Your task to perform on an android device: turn vacation reply on in the gmail app Image 0: 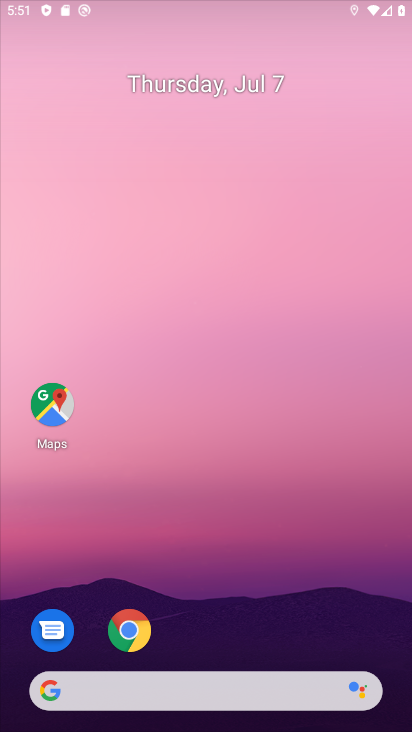
Step 0: drag from (196, 615) to (135, 5)
Your task to perform on an android device: turn vacation reply on in the gmail app Image 1: 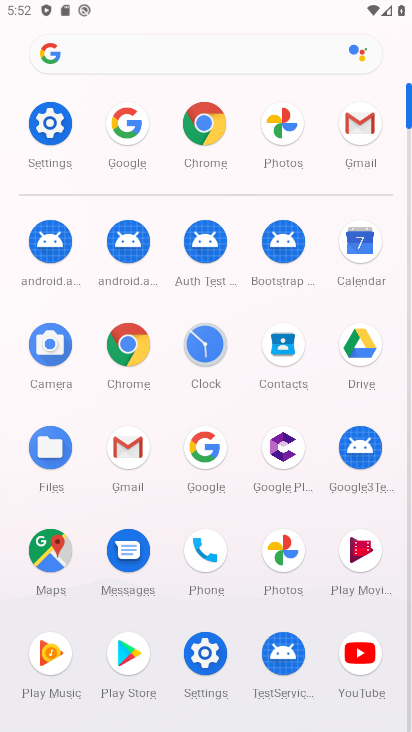
Step 1: click (128, 457)
Your task to perform on an android device: turn vacation reply on in the gmail app Image 2: 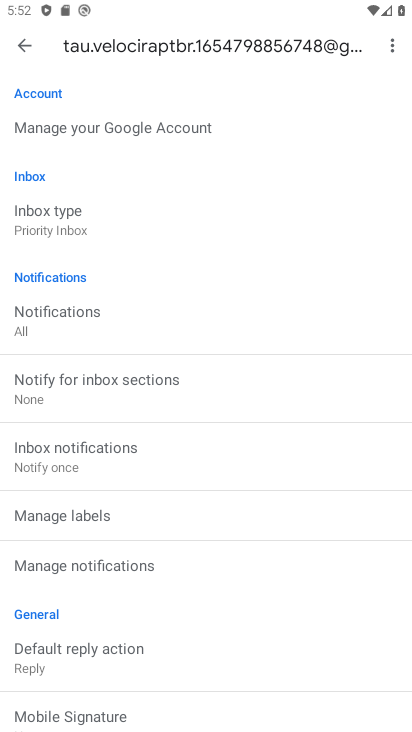
Step 2: drag from (87, 634) to (123, 160)
Your task to perform on an android device: turn vacation reply on in the gmail app Image 3: 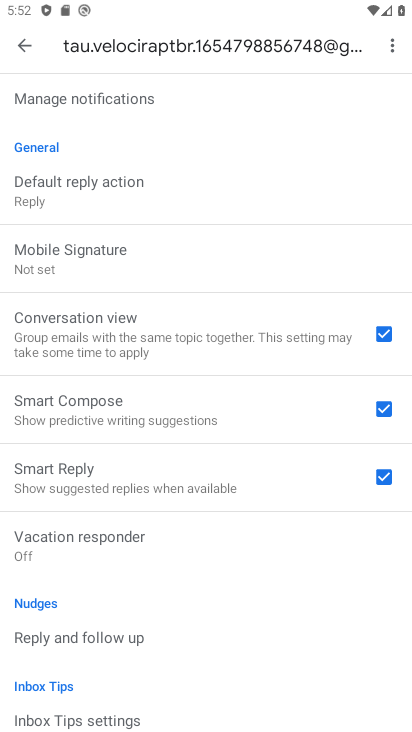
Step 3: drag from (151, 551) to (244, 0)
Your task to perform on an android device: turn vacation reply on in the gmail app Image 4: 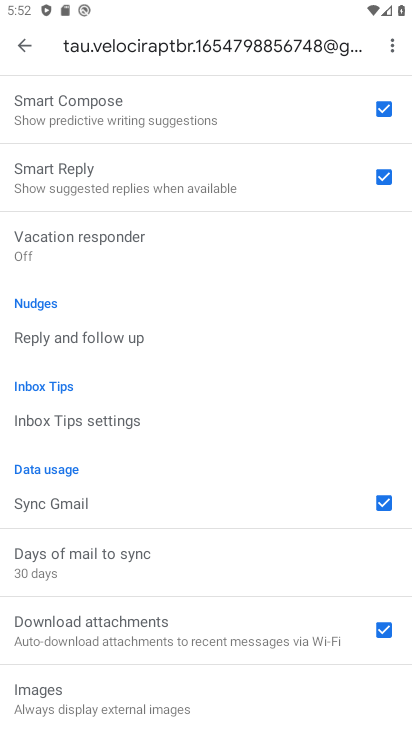
Step 4: drag from (205, 376) to (202, 430)
Your task to perform on an android device: turn vacation reply on in the gmail app Image 5: 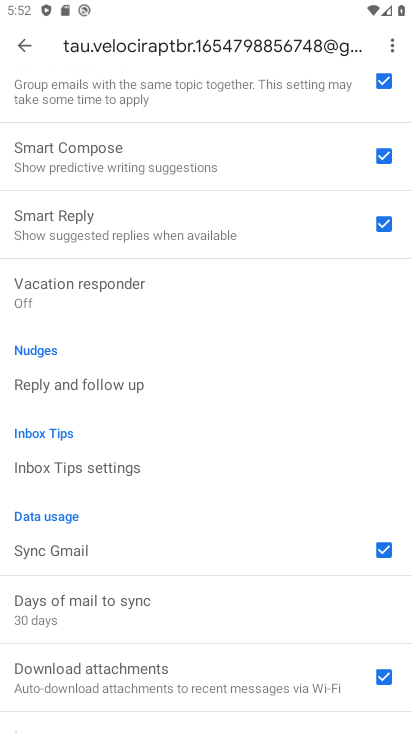
Step 5: drag from (216, 271) to (206, 709)
Your task to perform on an android device: turn vacation reply on in the gmail app Image 6: 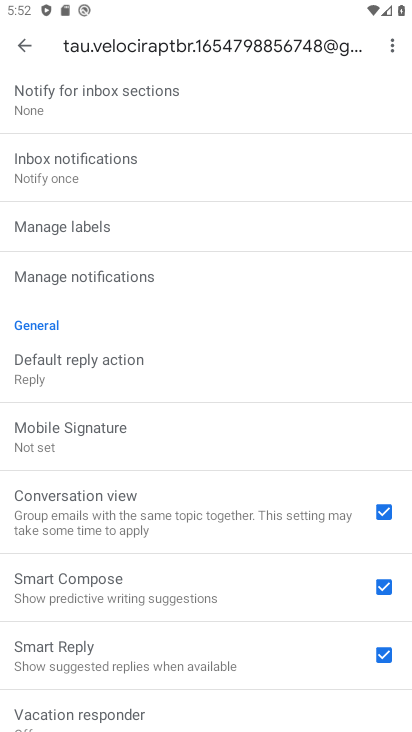
Step 6: drag from (224, 191) to (204, 588)
Your task to perform on an android device: turn vacation reply on in the gmail app Image 7: 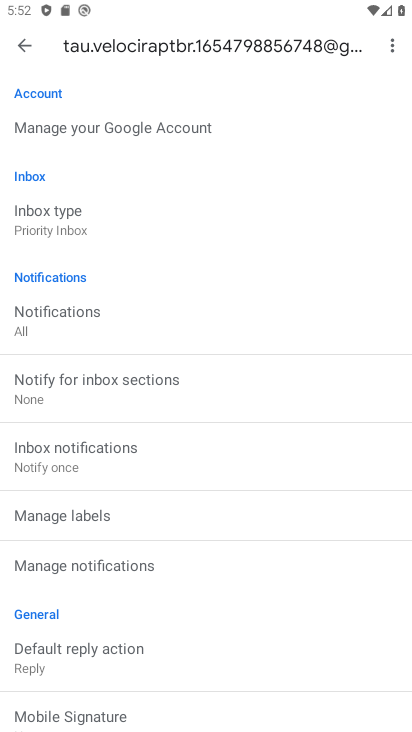
Step 7: drag from (161, 495) to (203, 93)
Your task to perform on an android device: turn vacation reply on in the gmail app Image 8: 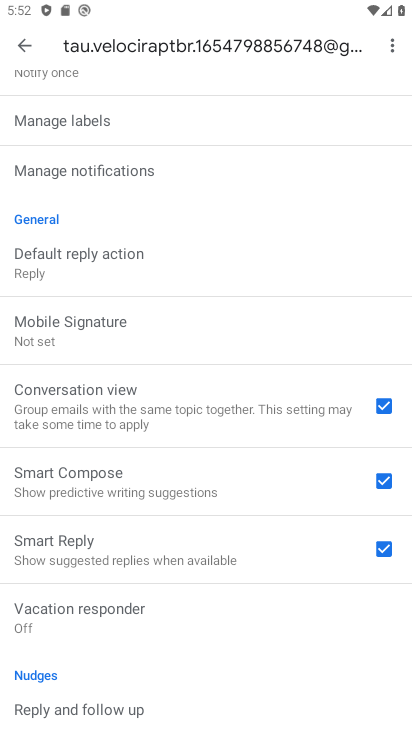
Step 8: click (130, 619)
Your task to perform on an android device: turn vacation reply on in the gmail app Image 9: 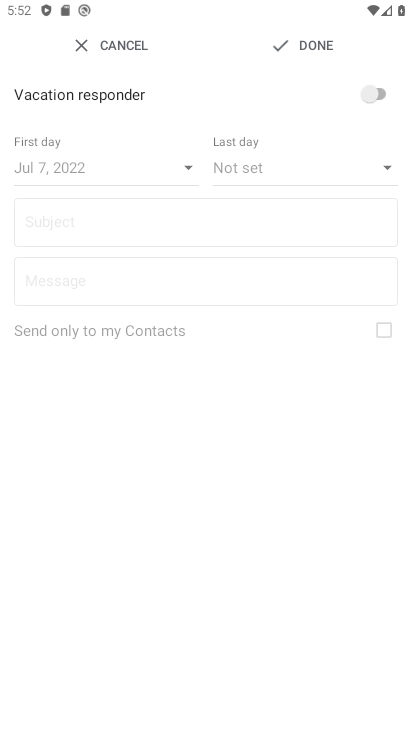
Step 9: click (380, 100)
Your task to perform on an android device: turn vacation reply on in the gmail app Image 10: 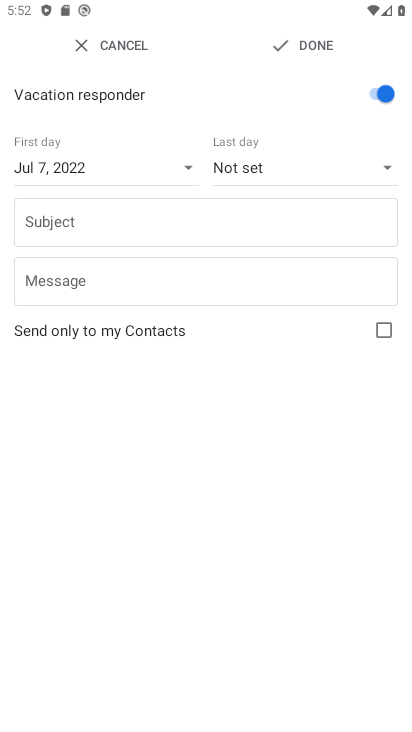
Step 10: task complete